Your task to perform on an android device: set default search engine in the chrome app Image 0: 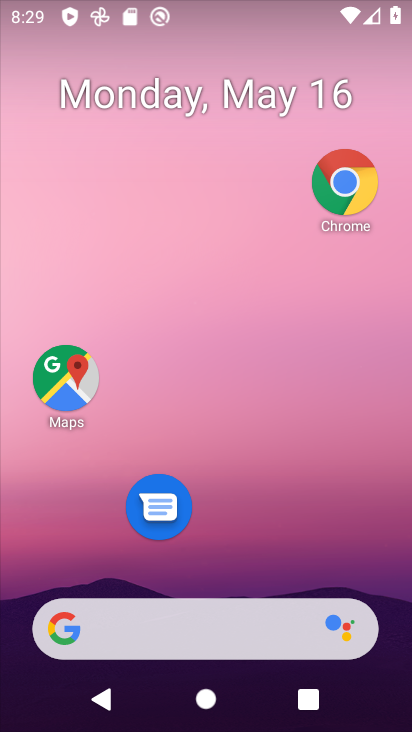
Step 0: drag from (248, 535) to (354, 188)
Your task to perform on an android device: set default search engine in the chrome app Image 1: 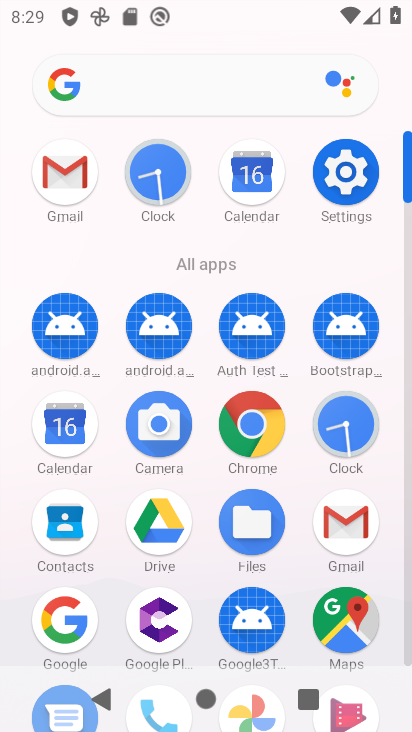
Step 1: click (340, 184)
Your task to perform on an android device: set default search engine in the chrome app Image 2: 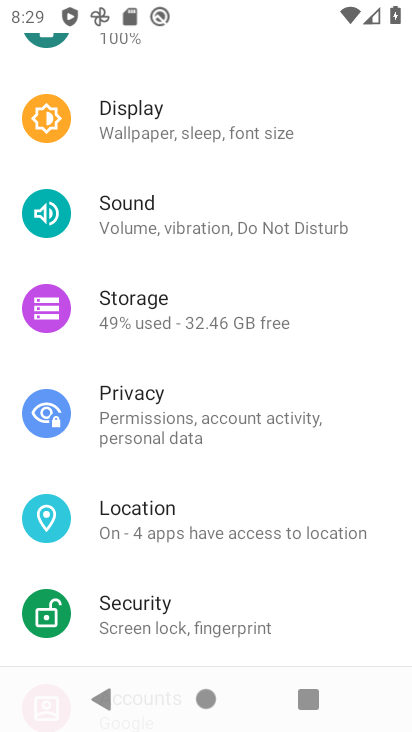
Step 2: press home button
Your task to perform on an android device: set default search engine in the chrome app Image 3: 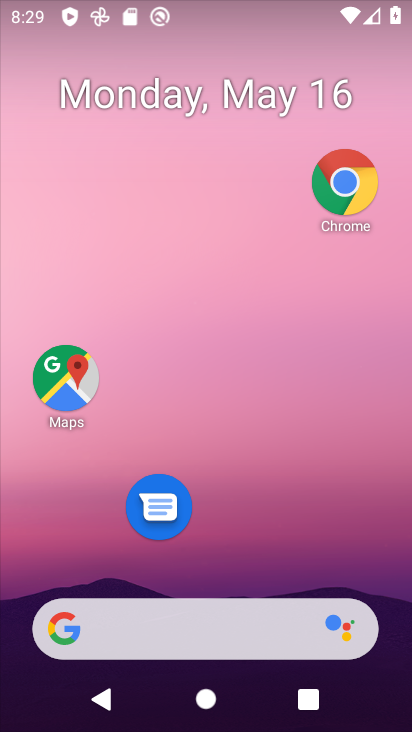
Step 3: click (365, 175)
Your task to perform on an android device: set default search engine in the chrome app Image 4: 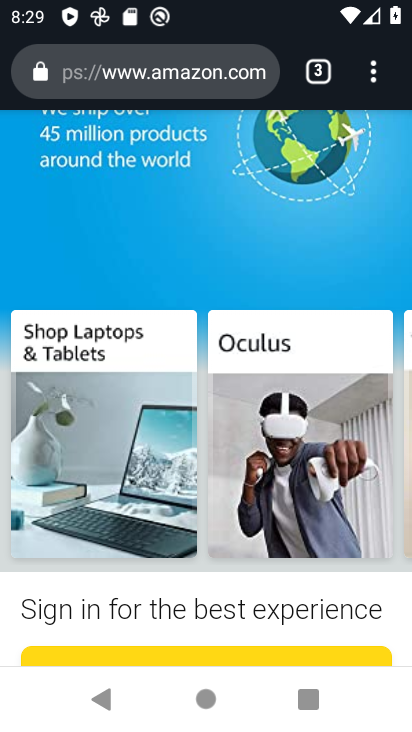
Step 4: drag from (374, 62) to (115, 493)
Your task to perform on an android device: set default search engine in the chrome app Image 5: 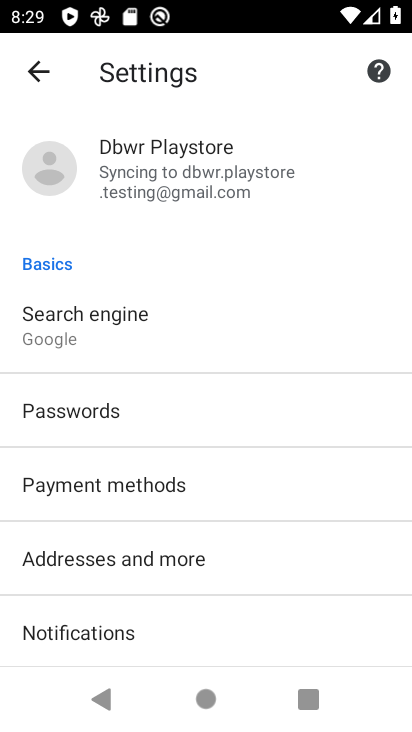
Step 5: click (73, 307)
Your task to perform on an android device: set default search engine in the chrome app Image 6: 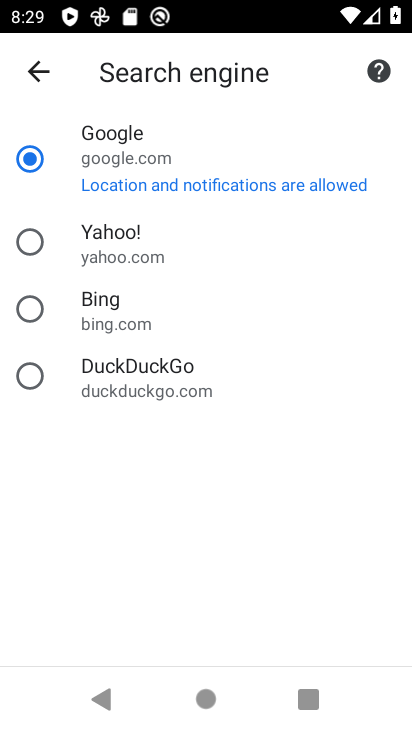
Step 6: task complete